Your task to perform on an android device: turn pop-ups on in chrome Image 0: 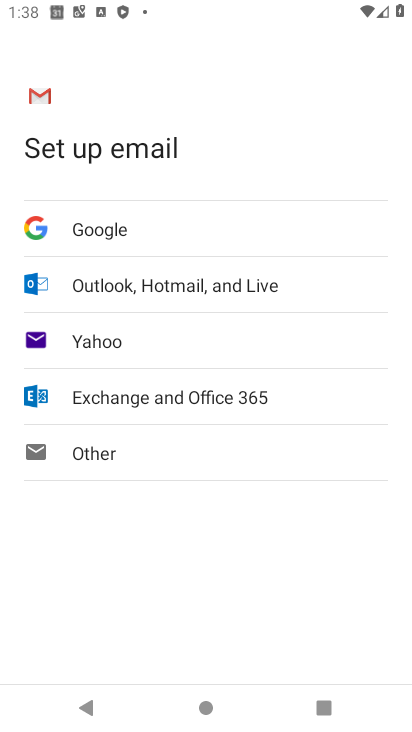
Step 0: press home button
Your task to perform on an android device: turn pop-ups on in chrome Image 1: 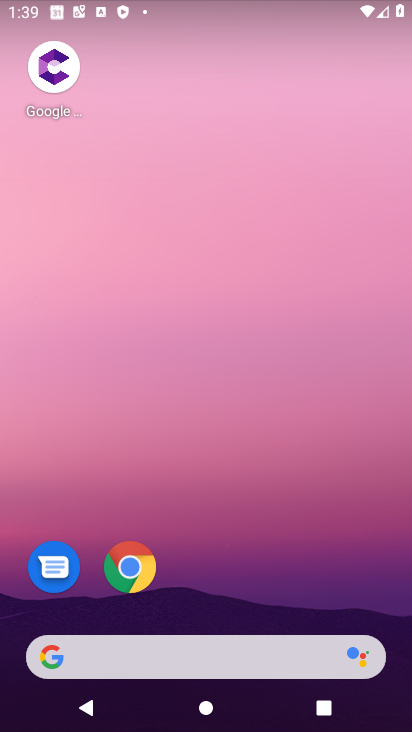
Step 1: drag from (206, 705) to (206, 59)
Your task to perform on an android device: turn pop-ups on in chrome Image 2: 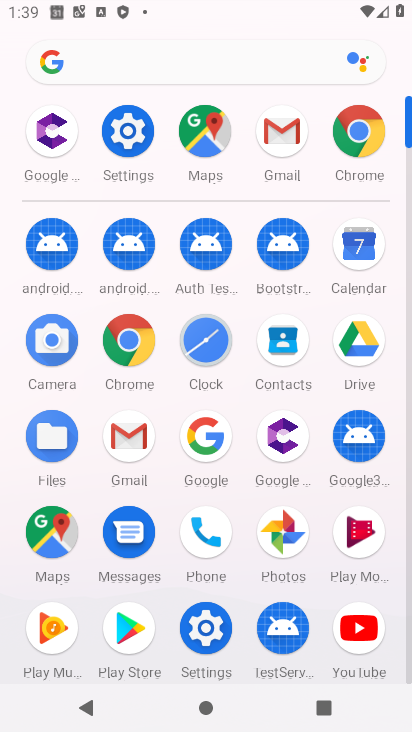
Step 2: click (121, 326)
Your task to perform on an android device: turn pop-ups on in chrome Image 3: 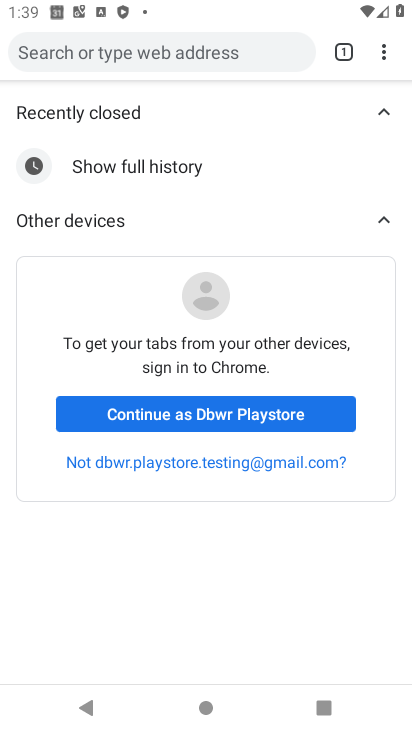
Step 3: drag from (384, 61) to (243, 442)
Your task to perform on an android device: turn pop-ups on in chrome Image 4: 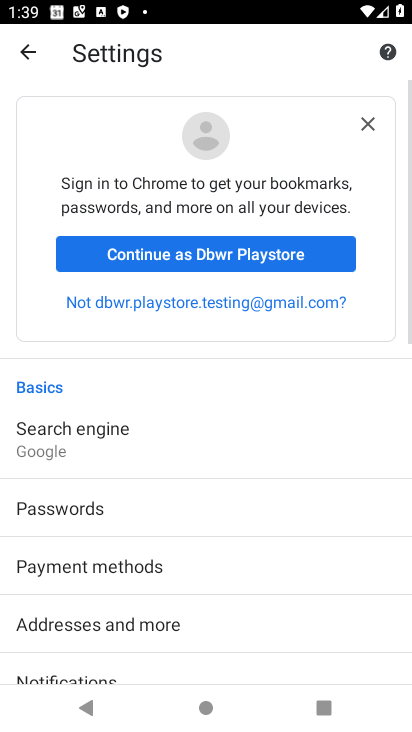
Step 4: drag from (222, 617) to (201, 98)
Your task to perform on an android device: turn pop-ups on in chrome Image 5: 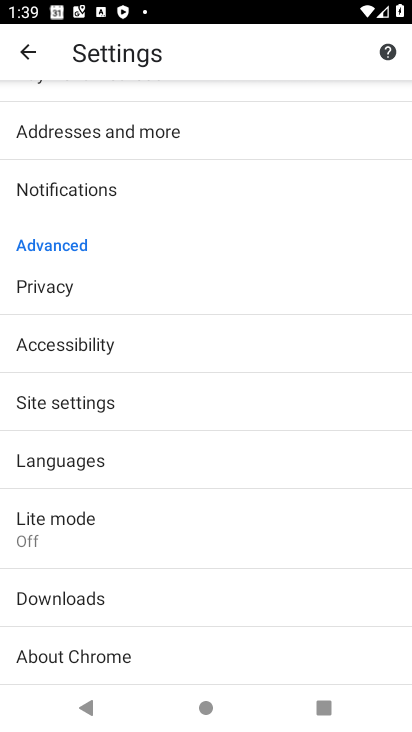
Step 5: click (101, 412)
Your task to perform on an android device: turn pop-ups on in chrome Image 6: 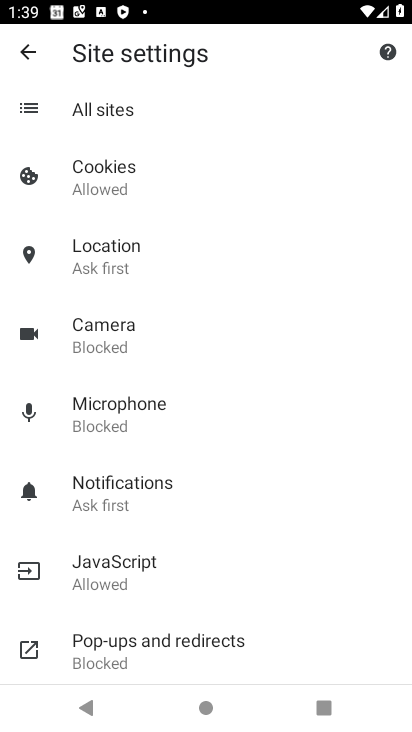
Step 6: click (154, 646)
Your task to perform on an android device: turn pop-ups on in chrome Image 7: 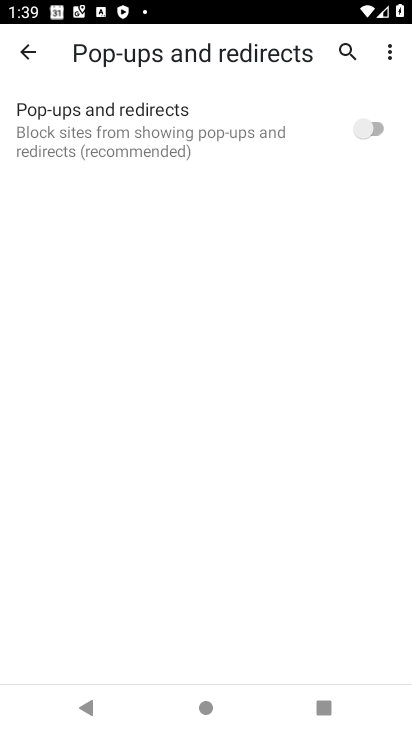
Step 7: click (377, 129)
Your task to perform on an android device: turn pop-ups on in chrome Image 8: 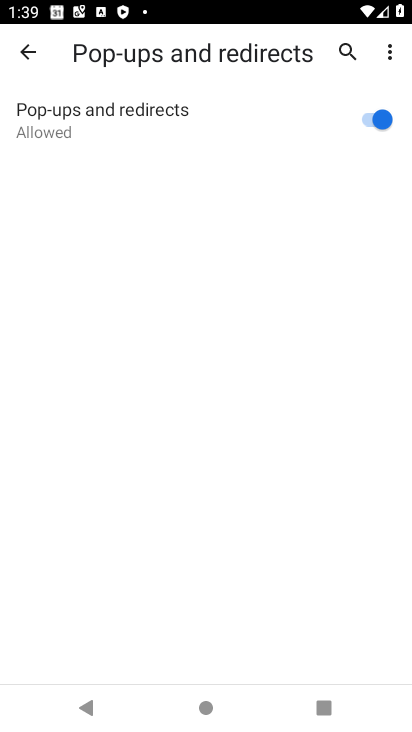
Step 8: task complete